Your task to perform on an android device: change timer sound Image 0: 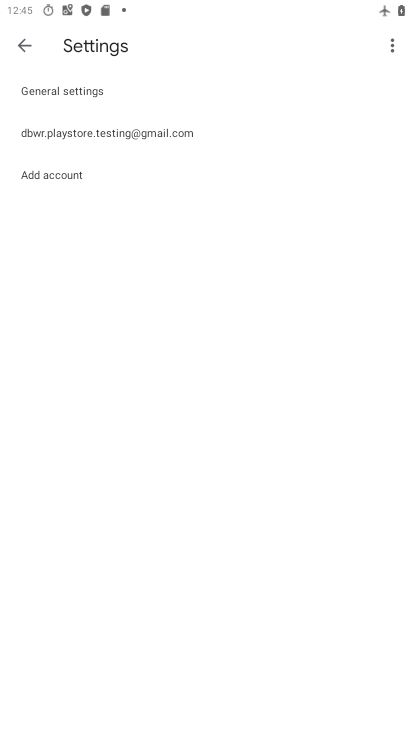
Step 0: press home button
Your task to perform on an android device: change timer sound Image 1: 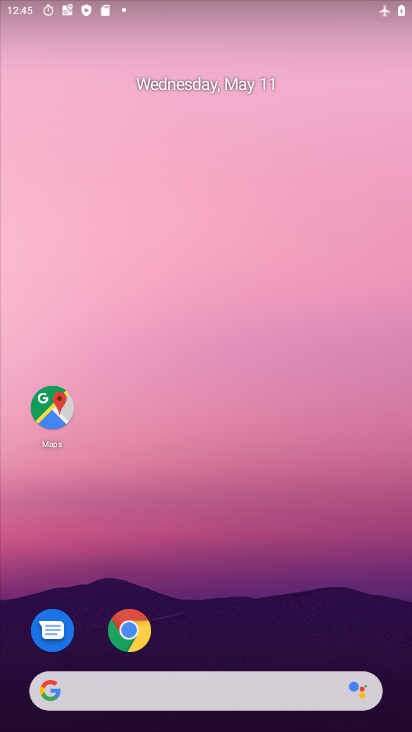
Step 1: drag from (245, 393) to (277, 104)
Your task to perform on an android device: change timer sound Image 2: 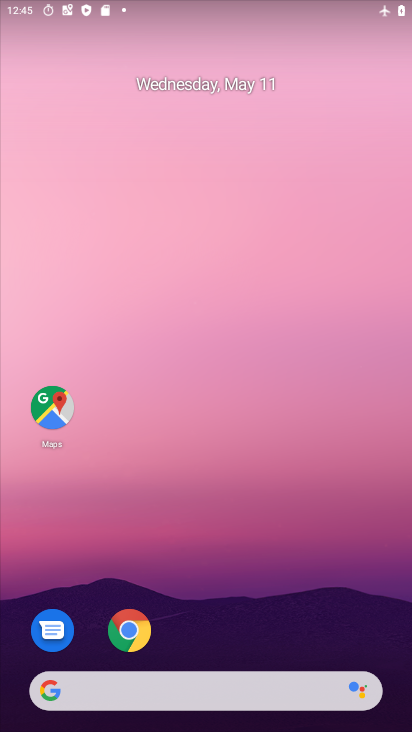
Step 2: drag from (236, 557) to (329, 53)
Your task to perform on an android device: change timer sound Image 3: 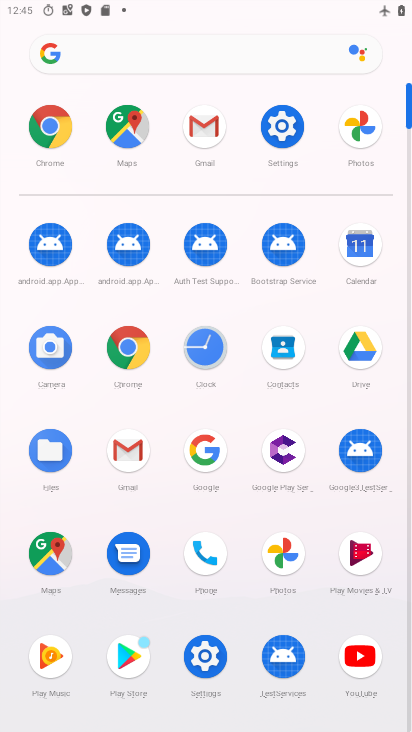
Step 3: click (216, 348)
Your task to perform on an android device: change timer sound Image 4: 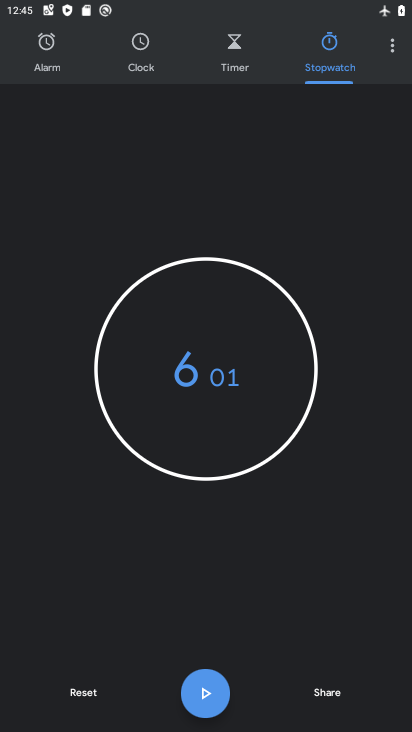
Step 4: click (389, 48)
Your task to perform on an android device: change timer sound Image 5: 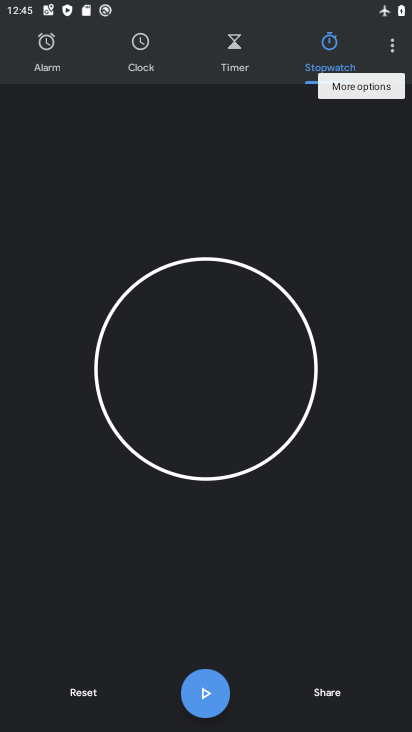
Step 5: click (382, 51)
Your task to perform on an android device: change timer sound Image 6: 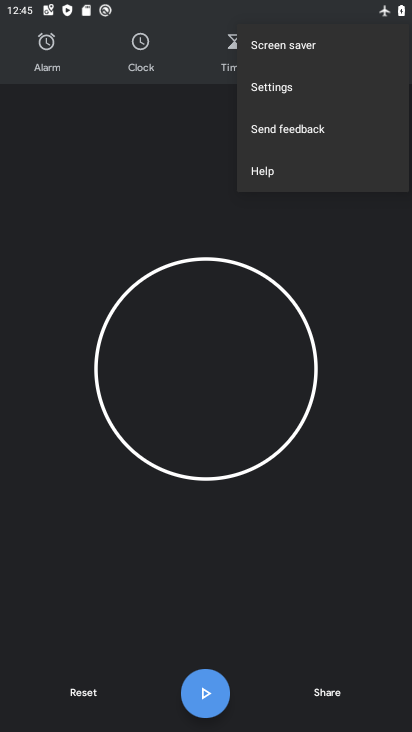
Step 6: click (294, 91)
Your task to perform on an android device: change timer sound Image 7: 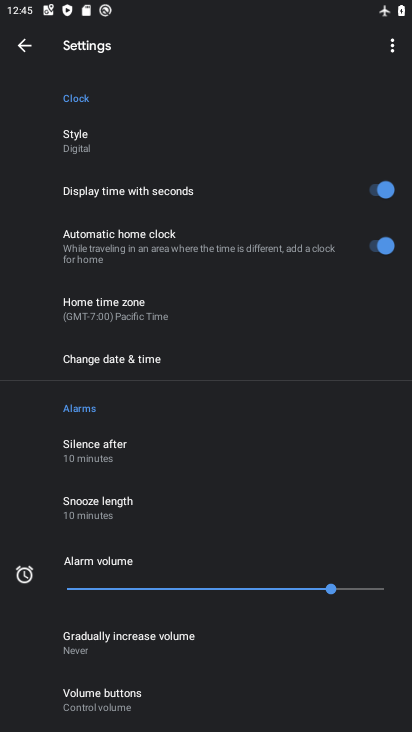
Step 7: drag from (212, 665) to (322, 181)
Your task to perform on an android device: change timer sound Image 8: 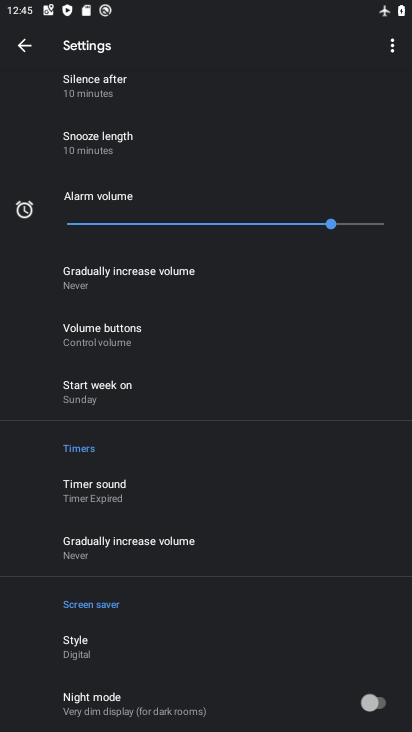
Step 8: click (108, 483)
Your task to perform on an android device: change timer sound Image 9: 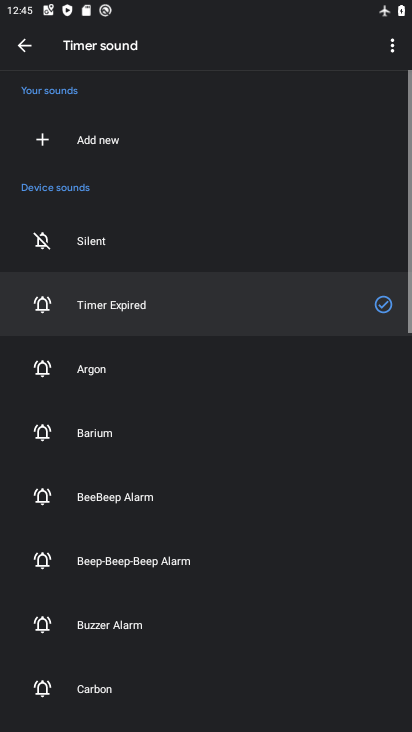
Step 9: click (128, 364)
Your task to perform on an android device: change timer sound Image 10: 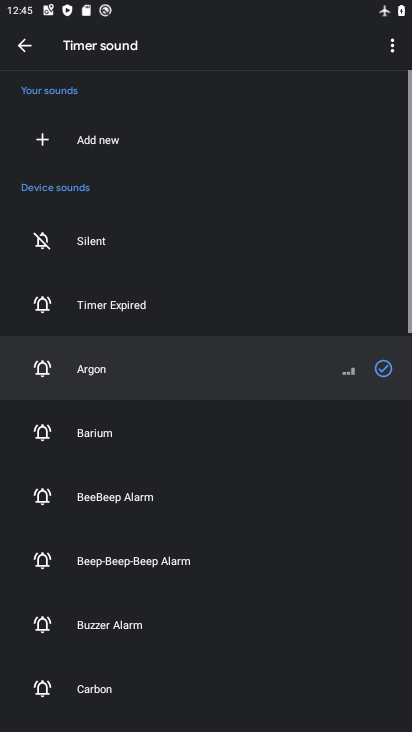
Step 10: task complete